Your task to perform on an android device: Clear the shopping cart on amazon. Image 0: 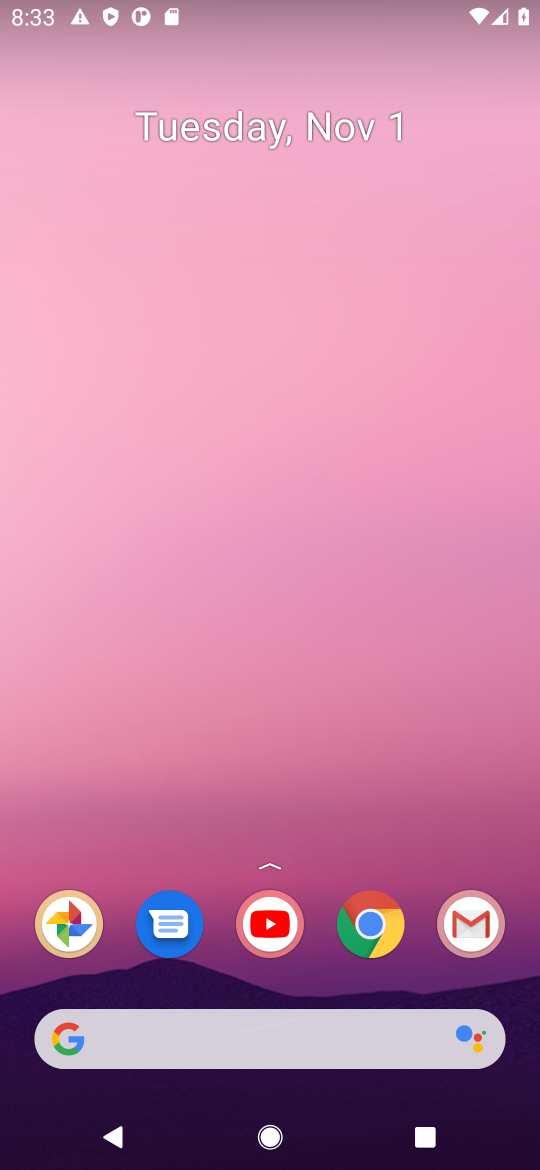
Step 0: press home button
Your task to perform on an android device: Clear the shopping cart on amazon. Image 1: 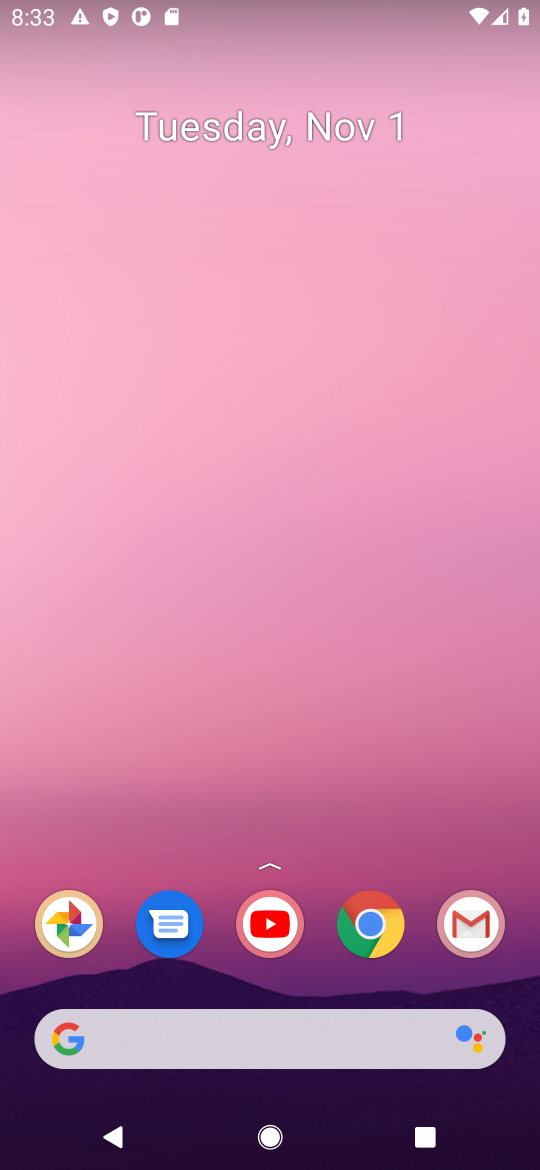
Step 1: click (117, 1038)
Your task to perform on an android device: Clear the shopping cart on amazon. Image 2: 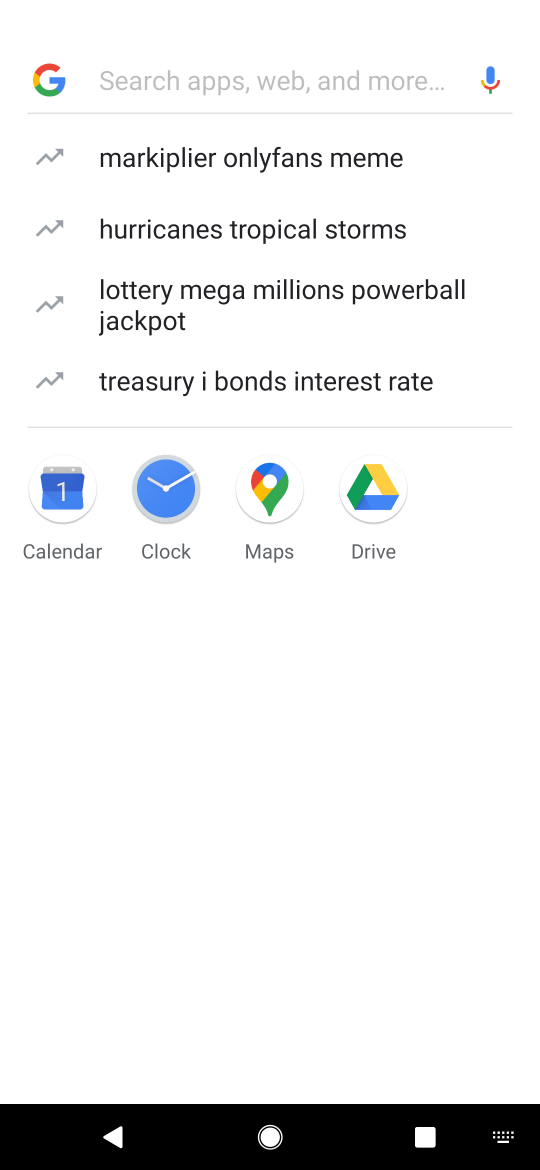
Step 2: type "amazon"
Your task to perform on an android device: Clear the shopping cart on amazon. Image 3: 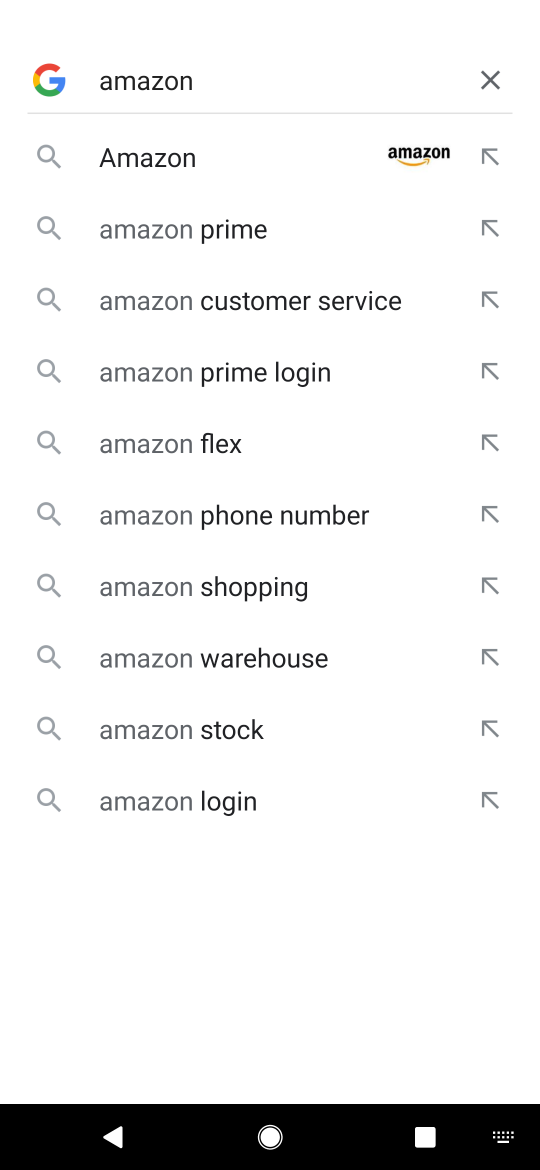
Step 3: press enter
Your task to perform on an android device: Clear the shopping cart on amazon. Image 4: 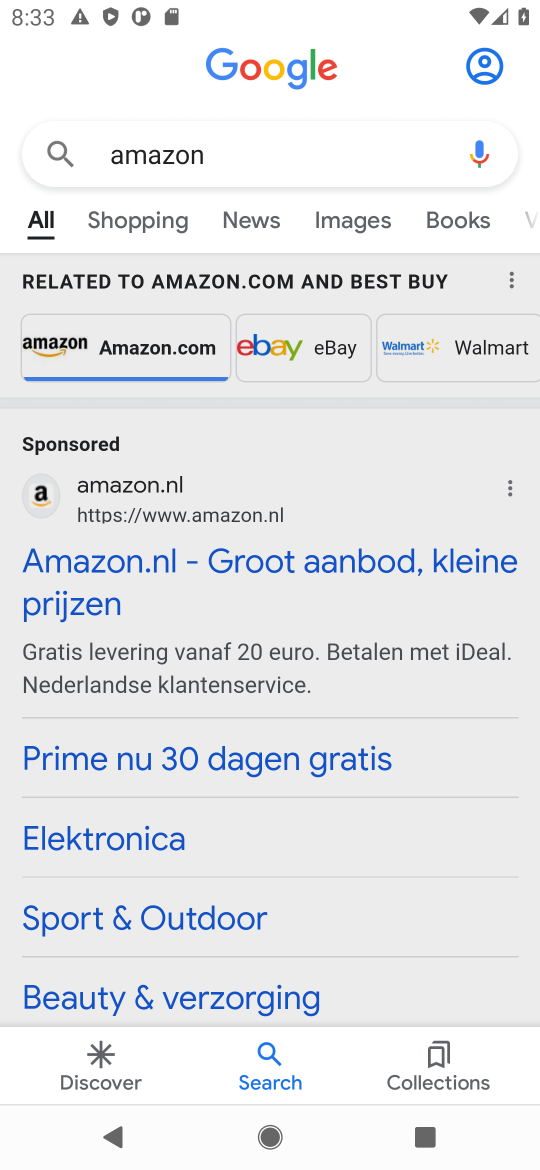
Step 4: click (103, 565)
Your task to perform on an android device: Clear the shopping cart on amazon. Image 5: 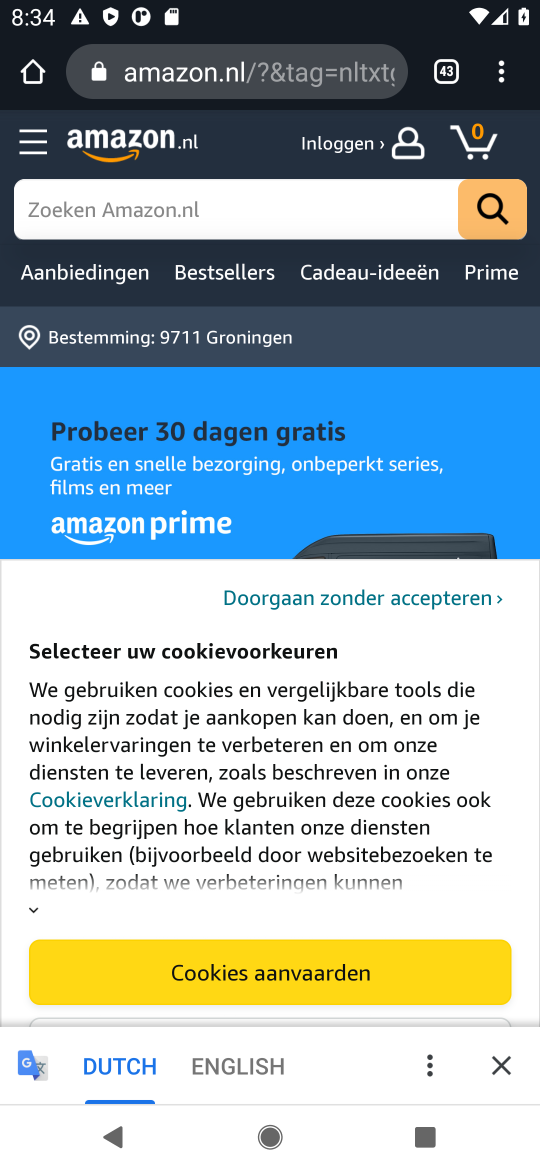
Step 5: click (475, 133)
Your task to perform on an android device: Clear the shopping cart on amazon. Image 6: 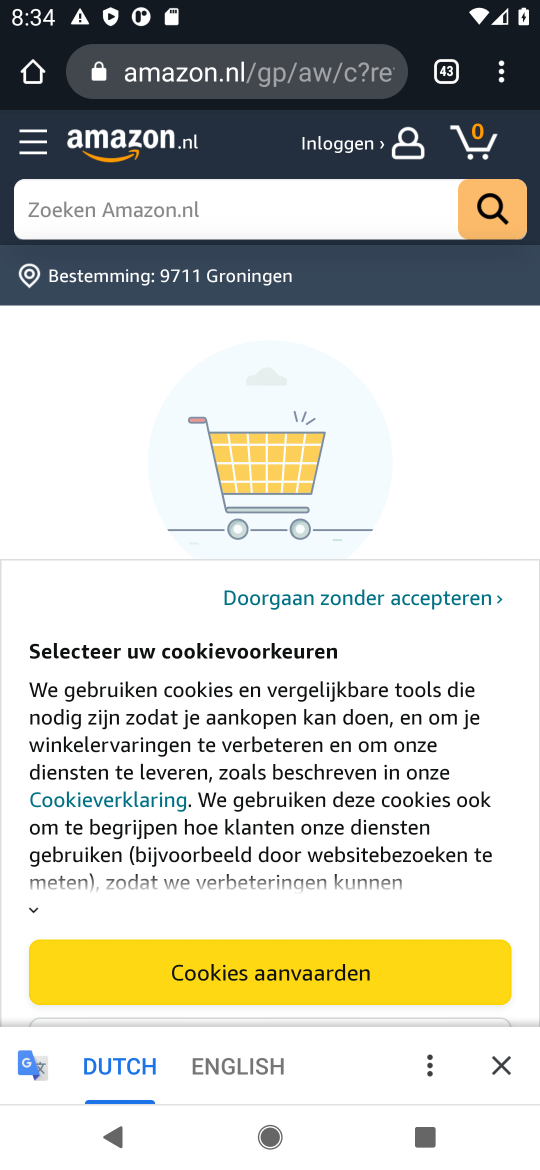
Step 6: task complete